Your task to perform on an android device: Clear all items from cart on costco. Add "logitech g903" to the cart on costco, then select checkout. Image 0: 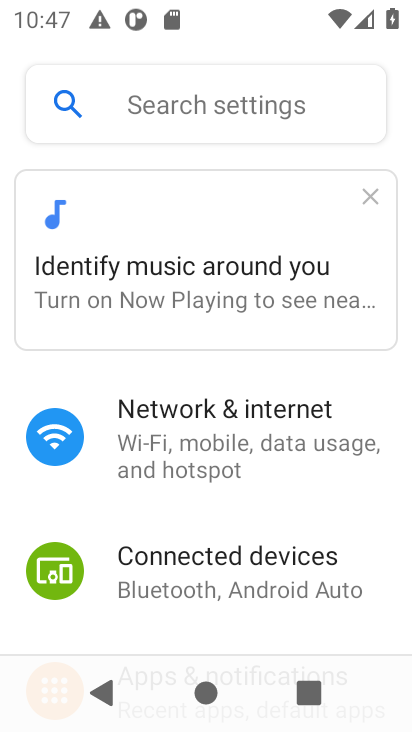
Step 0: press home button
Your task to perform on an android device: Clear all items from cart on costco. Add "logitech g903" to the cart on costco, then select checkout. Image 1: 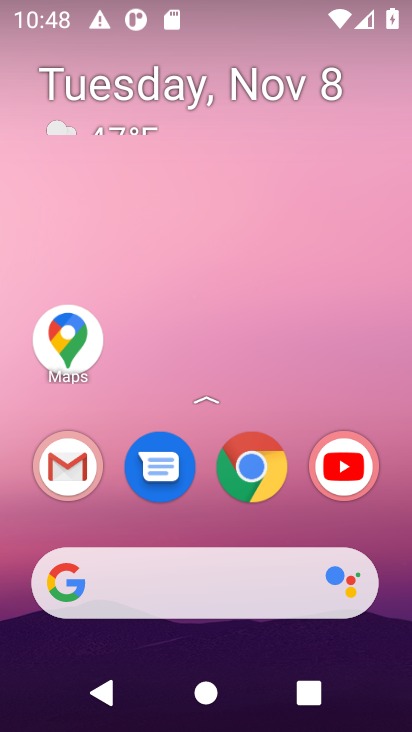
Step 1: click (255, 599)
Your task to perform on an android device: Clear all items from cart on costco. Add "logitech g903" to the cart on costco, then select checkout. Image 2: 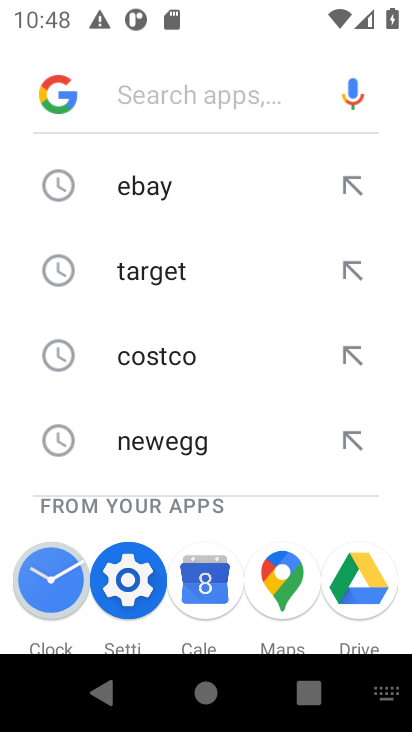
Step 2: type "costco"
Your task to perform on an android device: Clear all items from cart on costco. Add "logitech g903" to the cart on costco, then select checkout. Image 3: 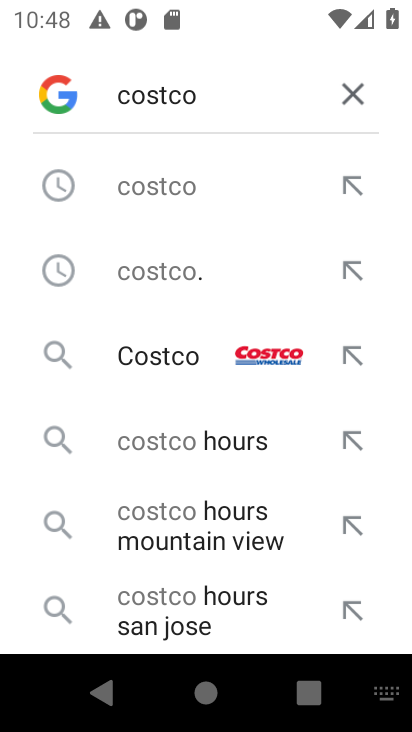
Step 3: click (203, 365)
Your task to perform on an android device: Clear all items from cart on costco. Add "logitech g903" to the cart on costco, then select checkout. Image 4: 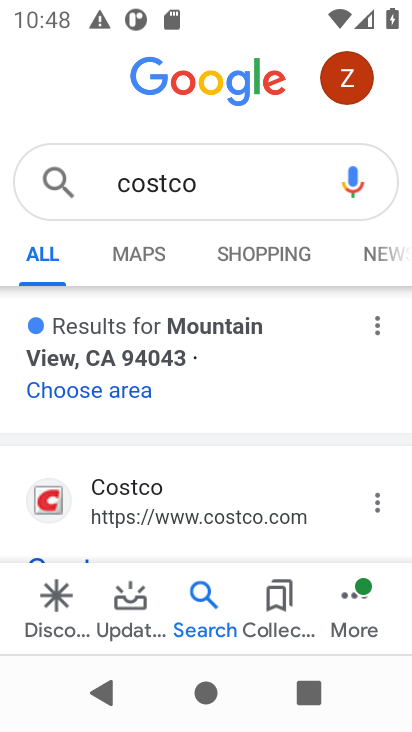
Step 4: click (174, 480)
Your task to perform on an android device: Clear all items from cart on costco. Add "logitech g903" to the cart on costco, then select checkout. Image 5: 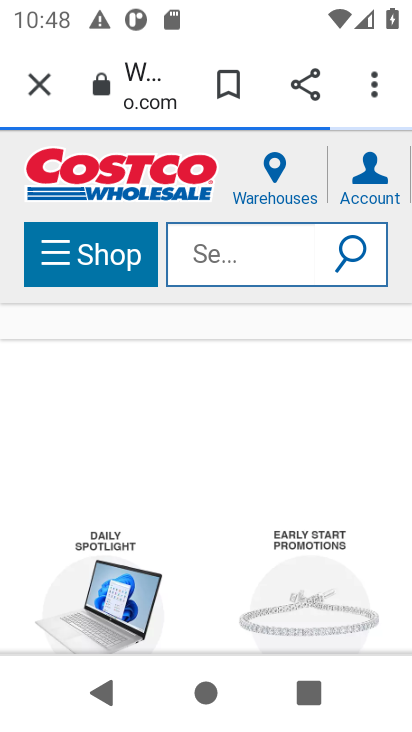
Step 5: task complete